Your task to perform on an android device: When is my next appointment? Image 0: 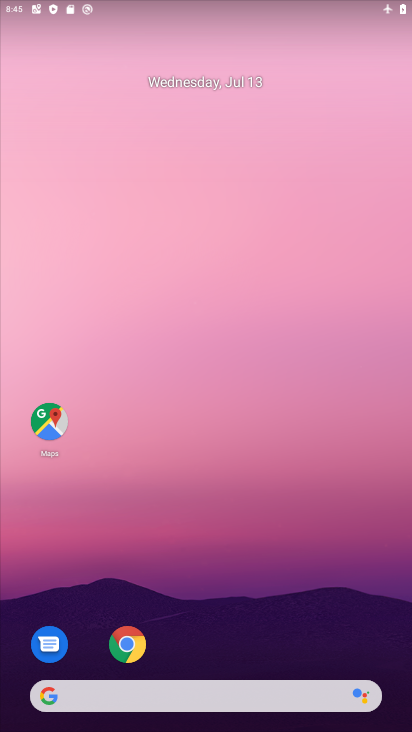
Step 0: drag from (197, 697) to (161, 129)
Your task to perform on an android device: When is my next appointment? Image 1: 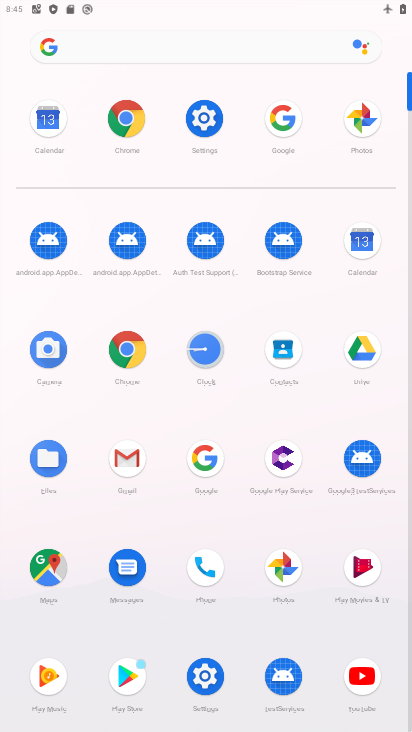
Step 1: click (358, 244)
Your task to perform on an android device: When is my next appointment? Image 2: 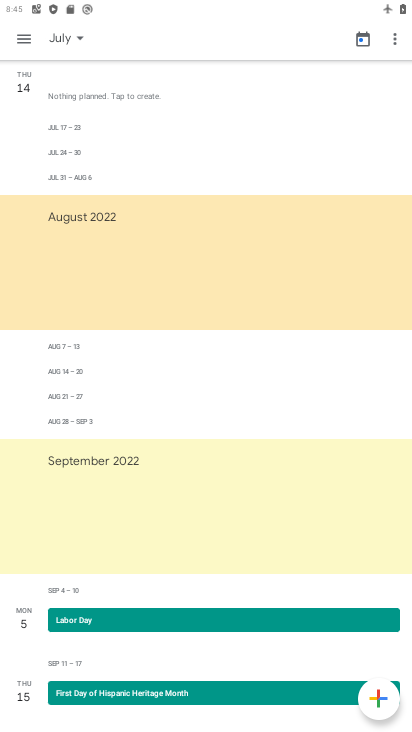
Step 2: click (81, 36)
Your task to perform on an android device: When is my next appointment? Image 3: 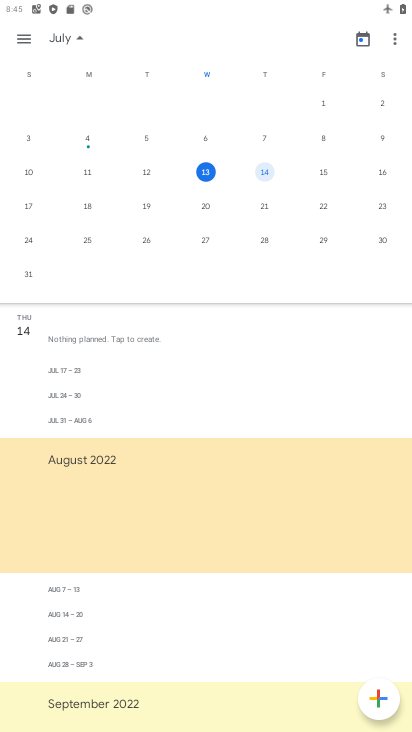
Step 3: click (264, 171)
Your task to perform on an android device: When is my next appointment? Image 4: 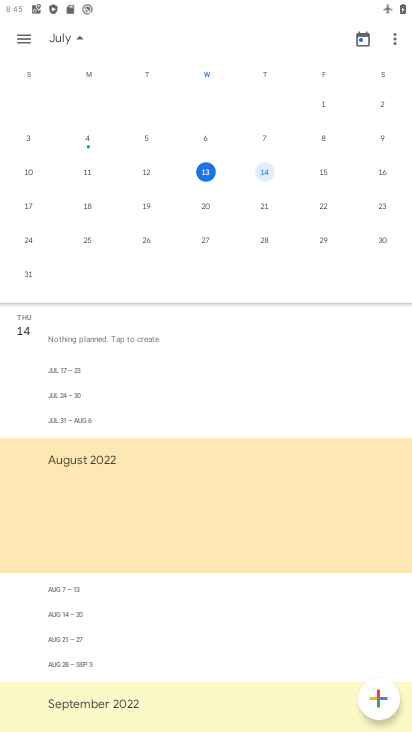
Step 4: click (262, 168)
Your task to perform on an android device: When is my next appointment? Image 5: 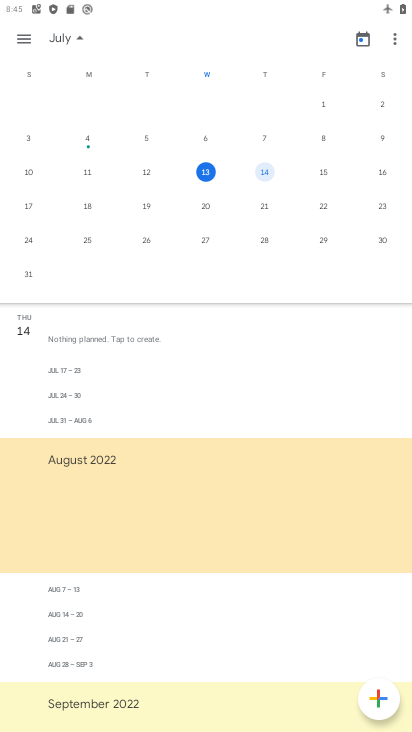
Step 5: click (17, 316)
Your task to perform on an android device: When is my next appointment? Image 6: 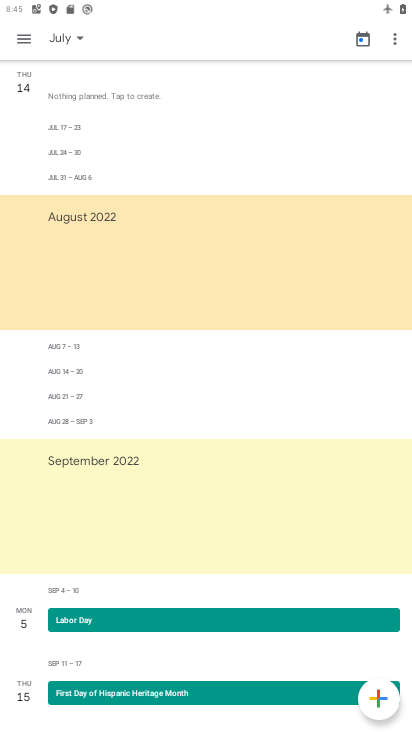
Step 6: task complete